Your task to perform on an android device: toggle airplane mode Image 0: 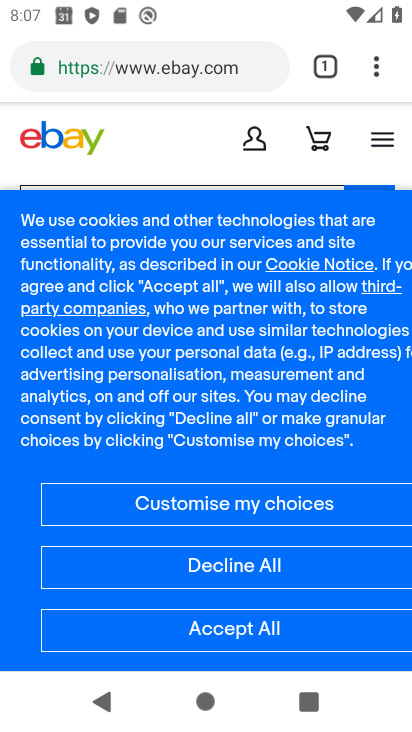
Step 0: press home button
Your task to perform on an android device: toggle airplane mode Image 1: 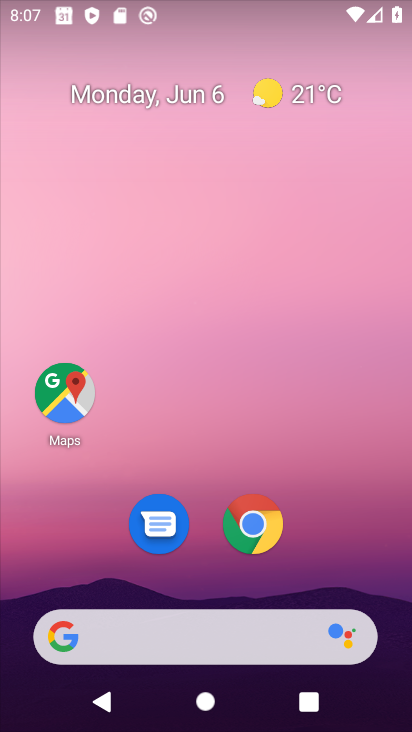
Step 1: drag from (297, 556) to (283, 72)
Your task to perform on an android device: toggle airplane mode Image 2: 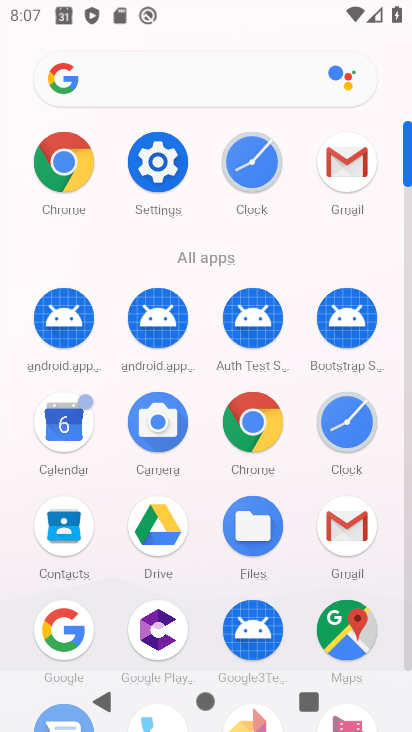
Step 2: click (157, 171)
Your task to perform on an android device: toggle airplane mode Image 3: 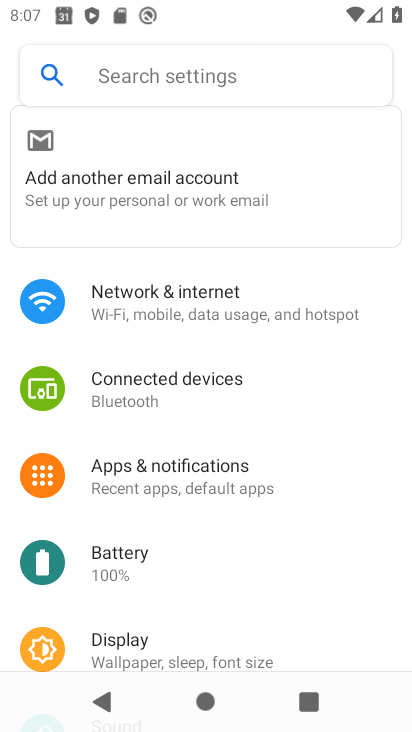
Step 3: click (237, 312)
Your task to perform on an android device: toggle airplane mode Image 4: 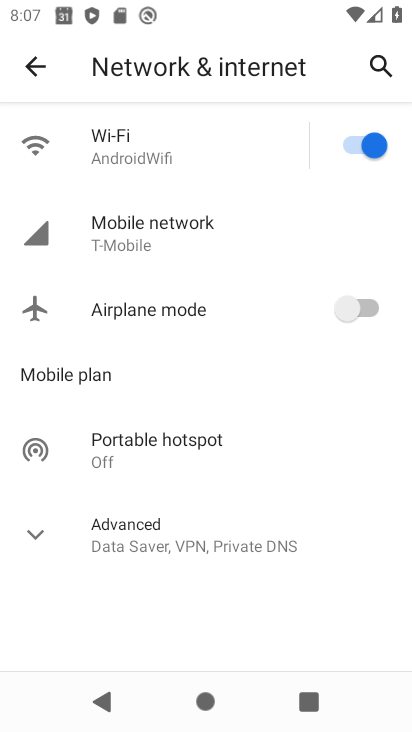
Step 4: click (353, 296)
Your task to perform on an android device: toggle airplane mode Image 5: 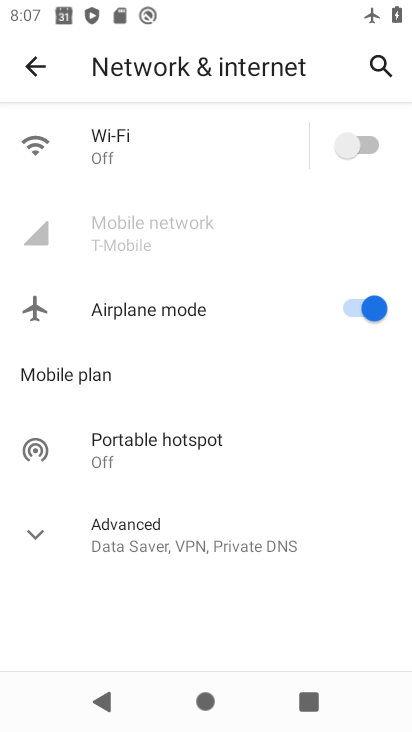
Step 5: task complete